Your task to perform on an android device: clear all cookies in the chrome app Image 0: 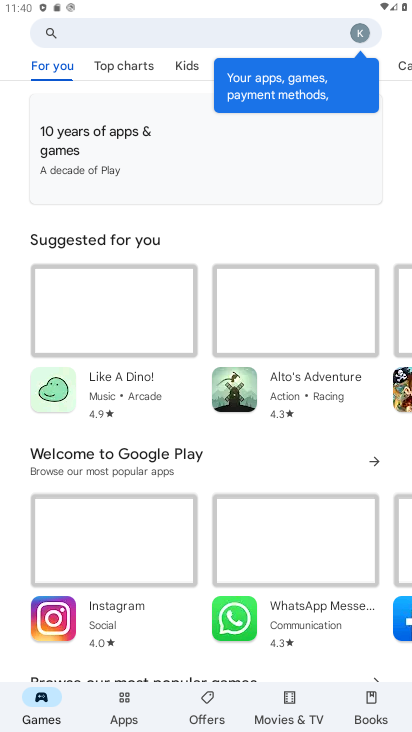
Step 0: press home button
Your task to perform on an android device: clear all cookies in the chrome app Image 1: 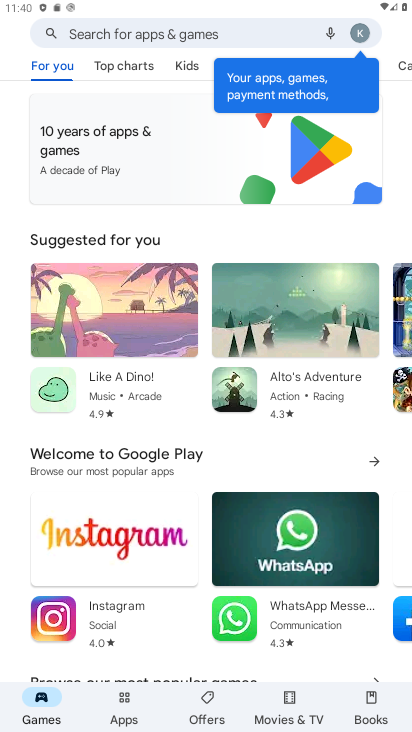
Step 1: drag from (319, 0) to (367, 37)
Your task to perform on an android device: clear all cookies in the chrome app Image 2: 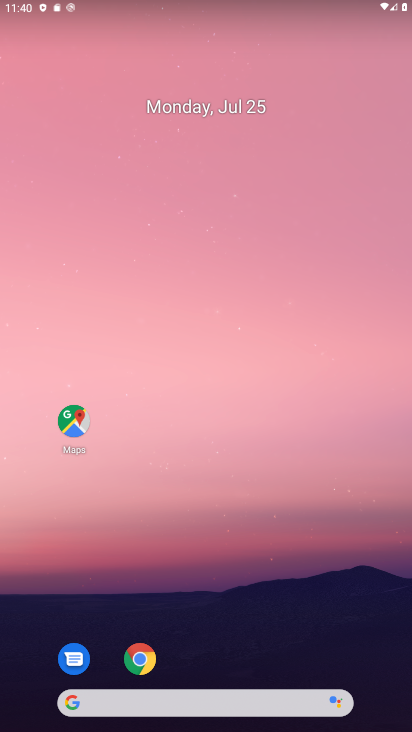
Step 2: click (164, 667)
Your task to perform on an android device: clear all cookies in the chrome app Image 3: 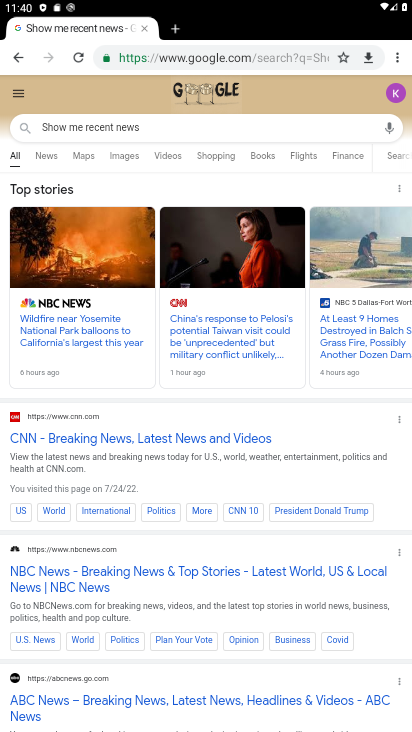
Step 3: drag from (400, 57) to (286, 386)
Your task to perform on an android device: clear all cookies in the chrome app Image 4: 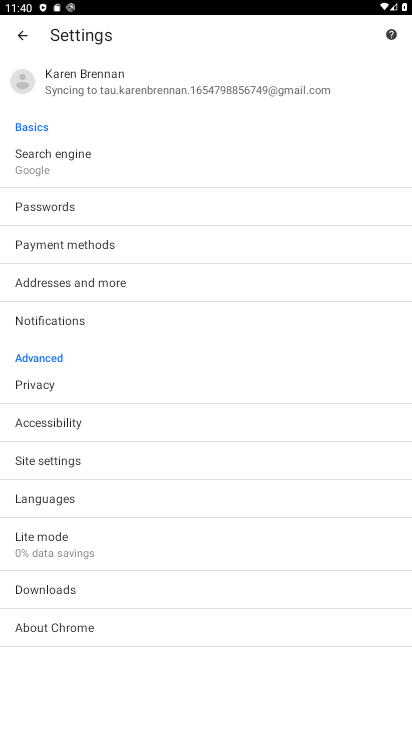
Step 4: click (71, 390)
Your task to perform on an android device: clear all cookies in the chrome app Image 5: 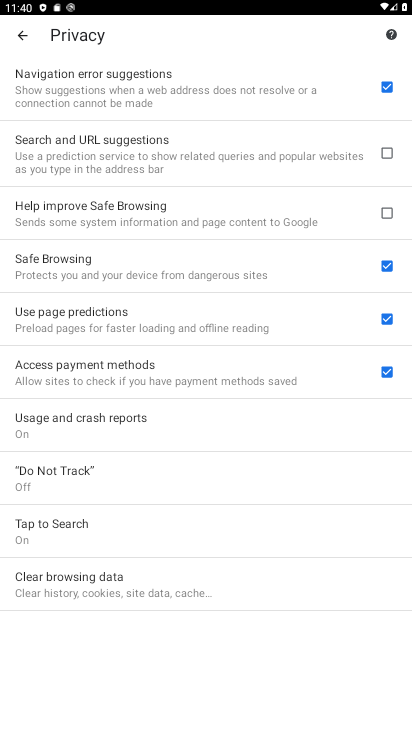
Step 5: click (84, 601)
Your task to perform on an android device: clear all cookies in the chrome app Image 6: 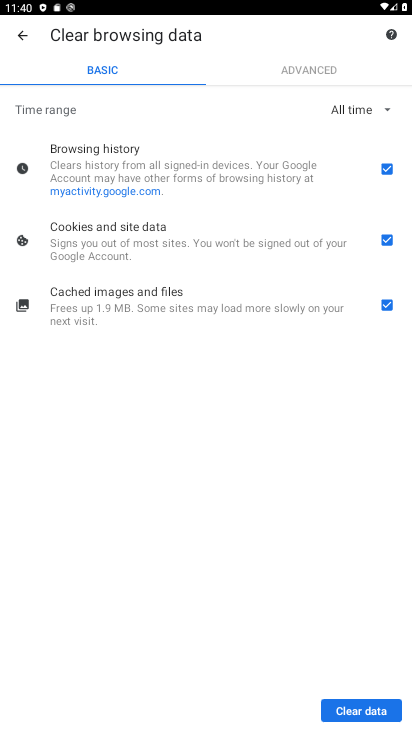
Step 6: click (369, 706)
Your task to perform on an android device: clear all cookies in the chrome app Image 7: 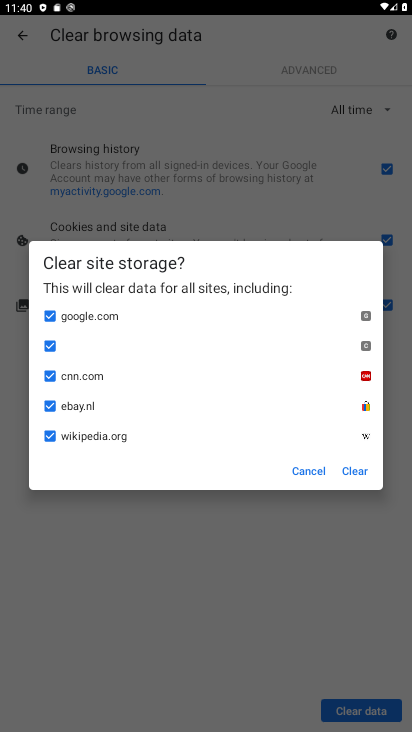
Step 7: click (348, 474)
Your task to perform on an android device: clear all cookies in the chrome app Image 8: 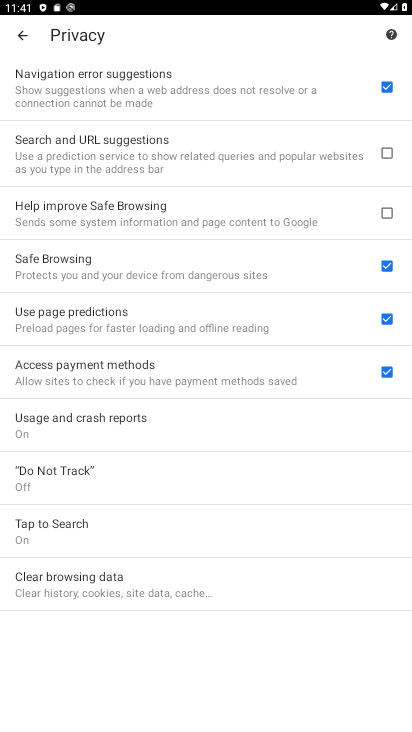
Step 8: task complete